Your task to perform on an android device: Open ESPN.com Image 0: 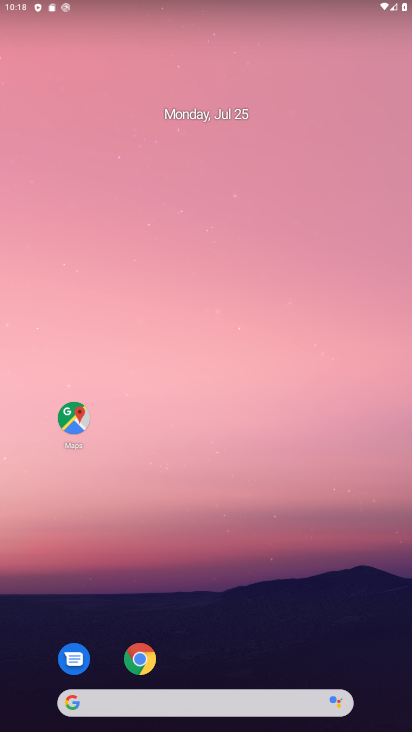
Step 0: click (139, 663)
Your task to perform on an android device: Open ESPN.com Image 1: 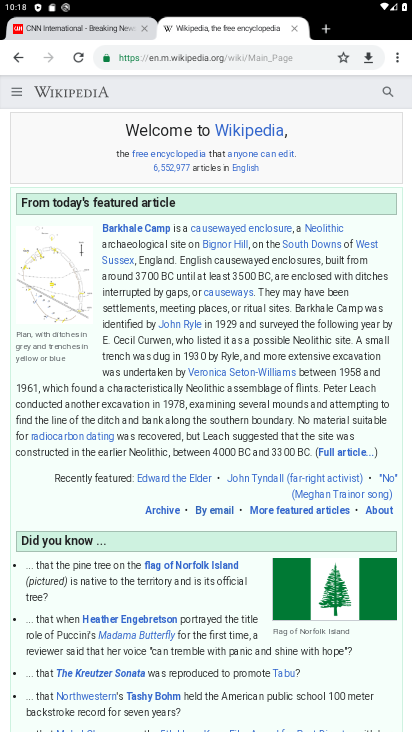
Step 1: click (326, 22)
Your task to perform on an android device: Open ESPN.com Image 2: 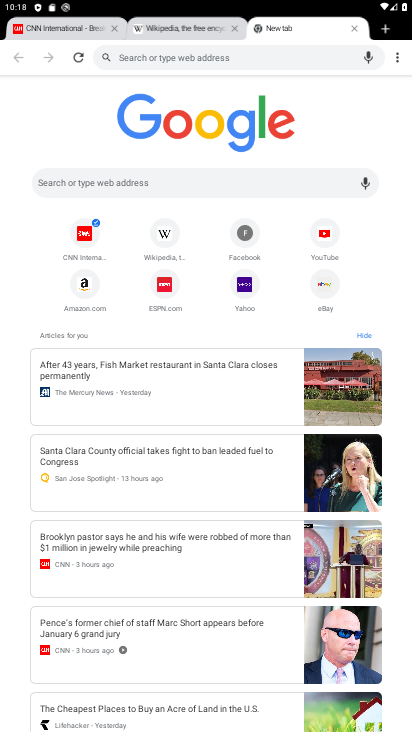
Step 2: click (166, 285)
Your task to perform on an android device: Open ESPN.com Image 3: 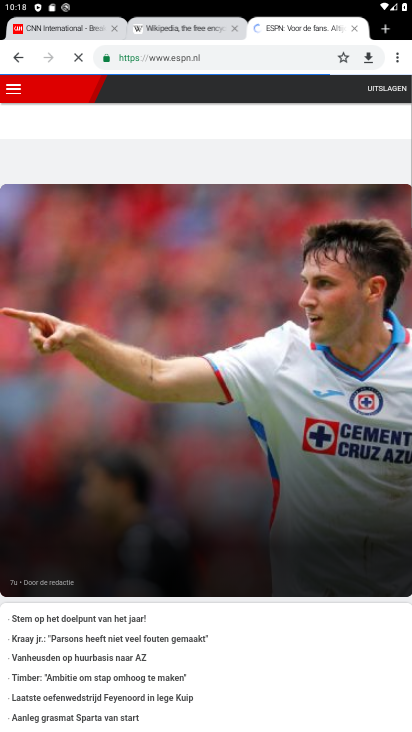
Step 3: task complete